Your task to perform on an android device: add a contact in the contacts app Image 0: 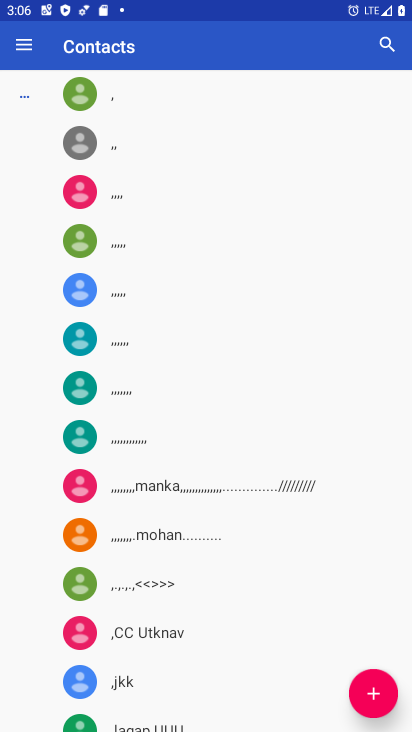
Step 0: press home button
Your task to perform on an android device: add a contact in the contacts app Image 1: 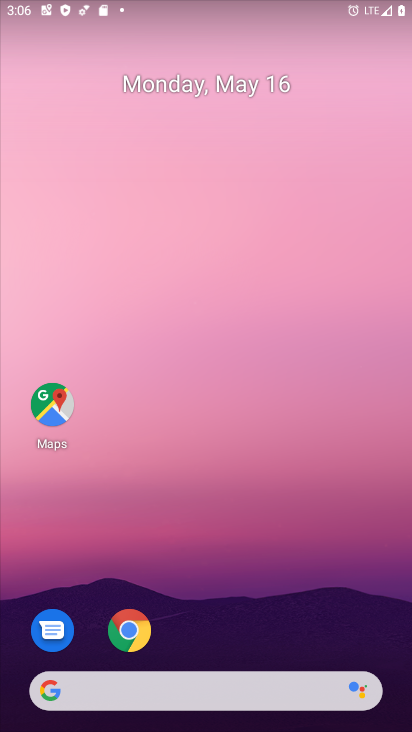
Step 1: drag from (254, 185) to (260, 34)
Your task to perform on an android device: add a contact in the contacts app Image 2: 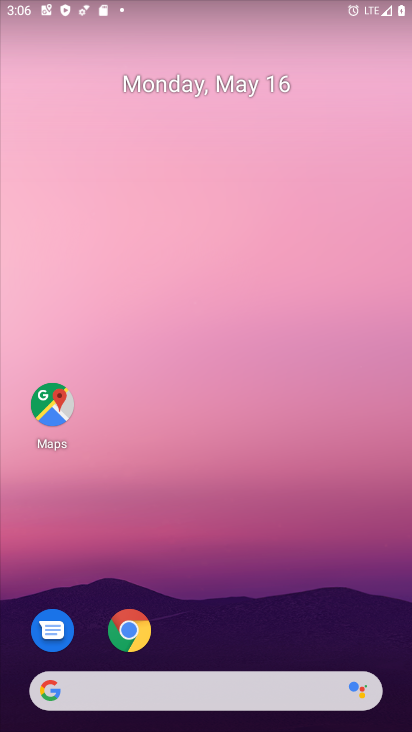
Step 2: drag from (248, 363) to (246, 0)
Your task to perform on an android device: add a contact in the contacts app Image 3: 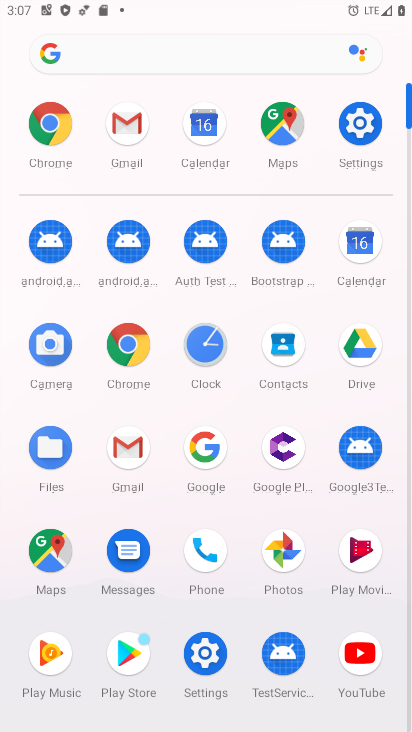
Step 3: drag from (216, 405) to (223, 32)
Your task to perform on an android device: add a contact in the contacts app Image 4: 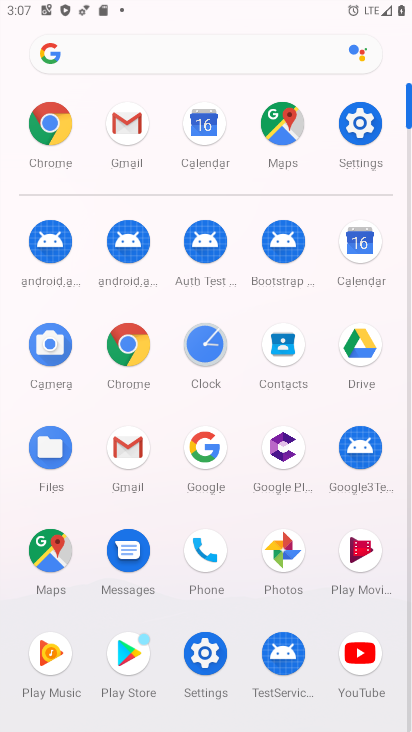
Step 4: click (282, 338)
Your task to perform on an android device: add a contact in the contacts app Image 5: 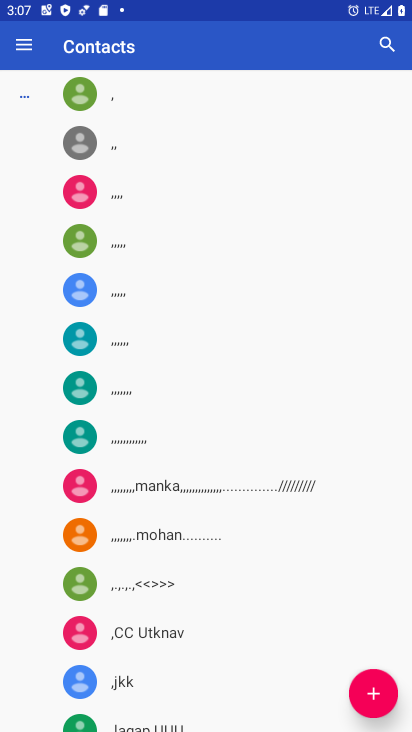
Step 5: click (376, 689)
Your task to perform on an android device: add a contact in the contacts app Image 6: 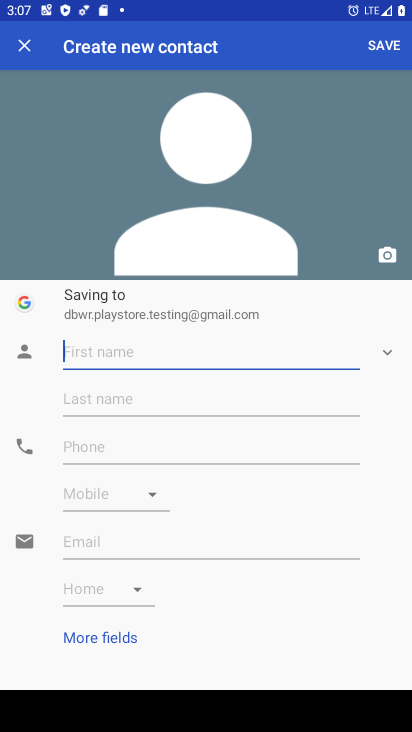
Step 6: type "dsretgff"
Your task to perform on an android device: add a contact in the contacts app Image 7: 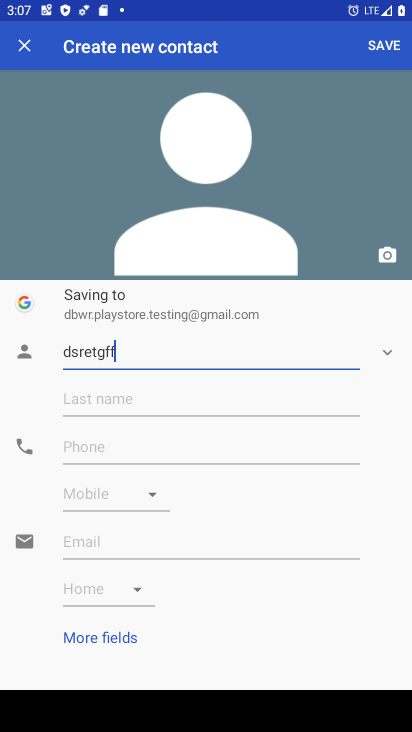
Step 7: click (379, 54)
Your task to perform on an android device: add a contact in the contacts app Image 8: 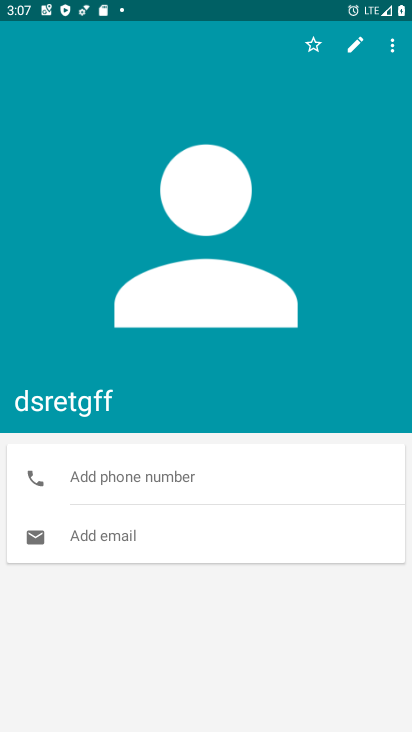
Step 8: task complete